Your task to perform on an android device: change the clock display to show seconds Image 0: 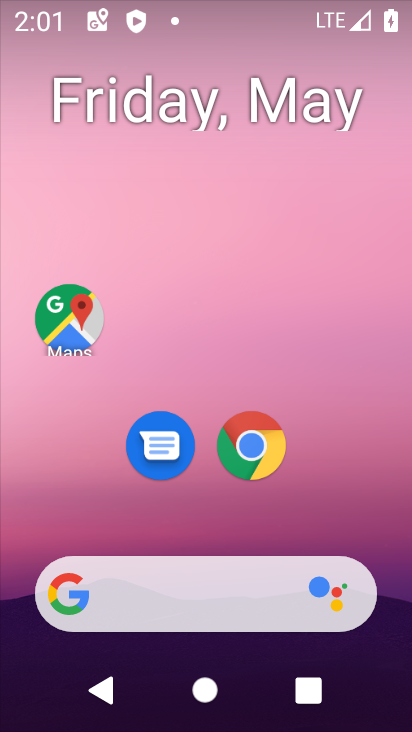
Step 0: drag from (195, 527) to (212, 186)
Your task to perform on an android device: change the clock display to show seconds Image 1: 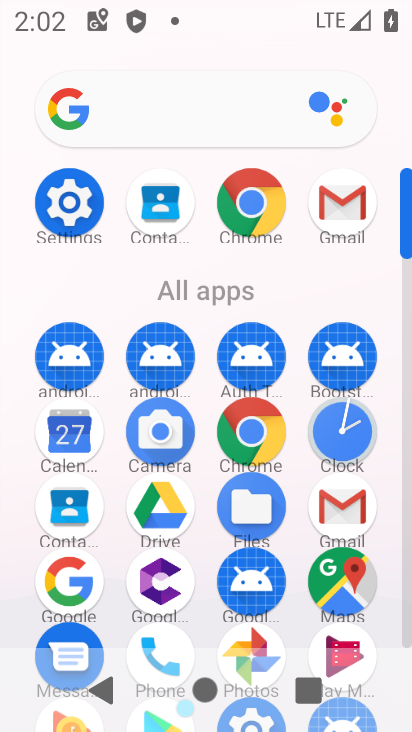
Step 1: click (343, 418)
Your task to perform on an android device: change the clock display to show seconds Image 2: 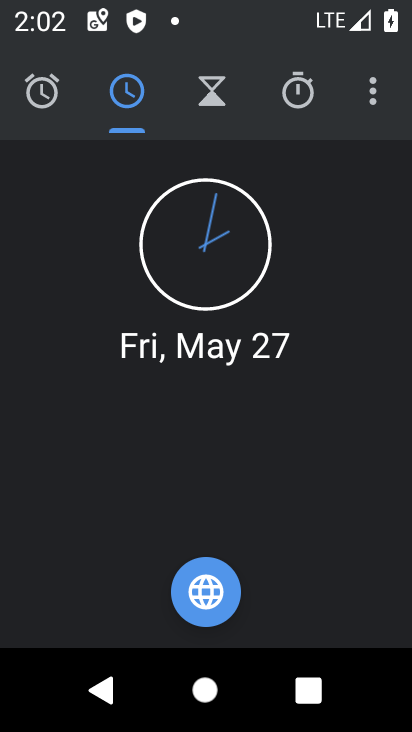
Step 2: click (373, 90)
Your task to perform on an android device: change the clock display to show seconds Image 3: 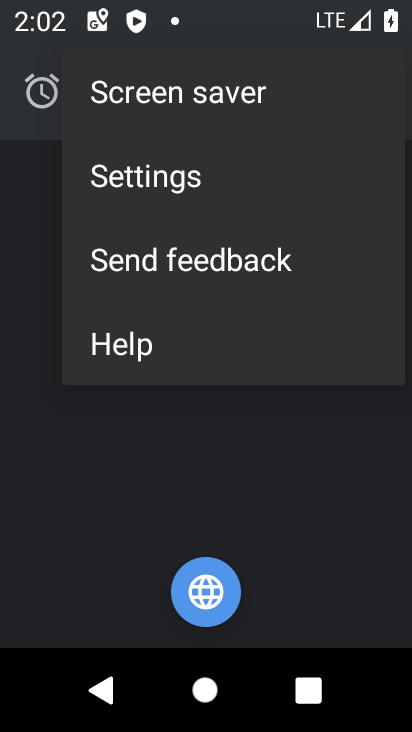
Step 3: click (213, 178)
Your task to perform on an android device: change the clock display to show seconds Image 4: 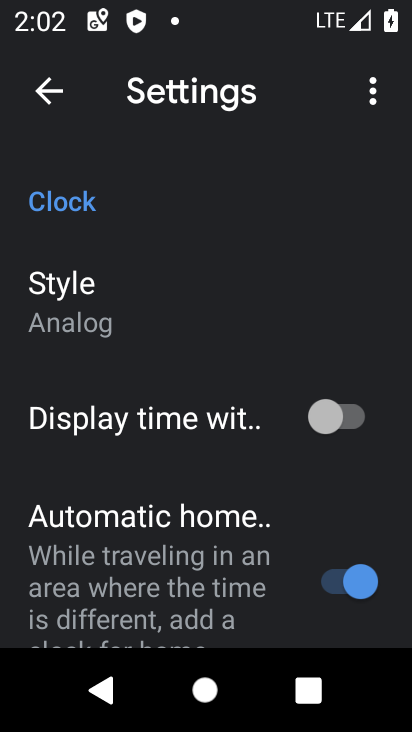
Step 4: click (342, 408)
Your task to perform on an android device: change the clock display to show seconds Image 5: 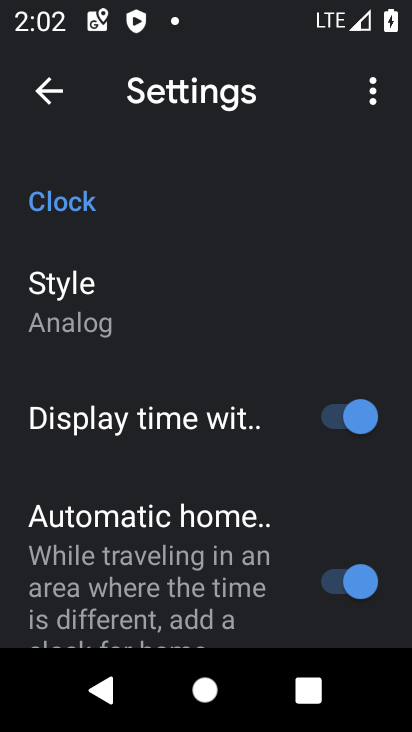
Step 5: task complete